Your task to perform on an android device: Empty the shopping cart on target. Search for "duracell triple a" on target, select the first entry, add it to the cart, then select checkout. Image 0: 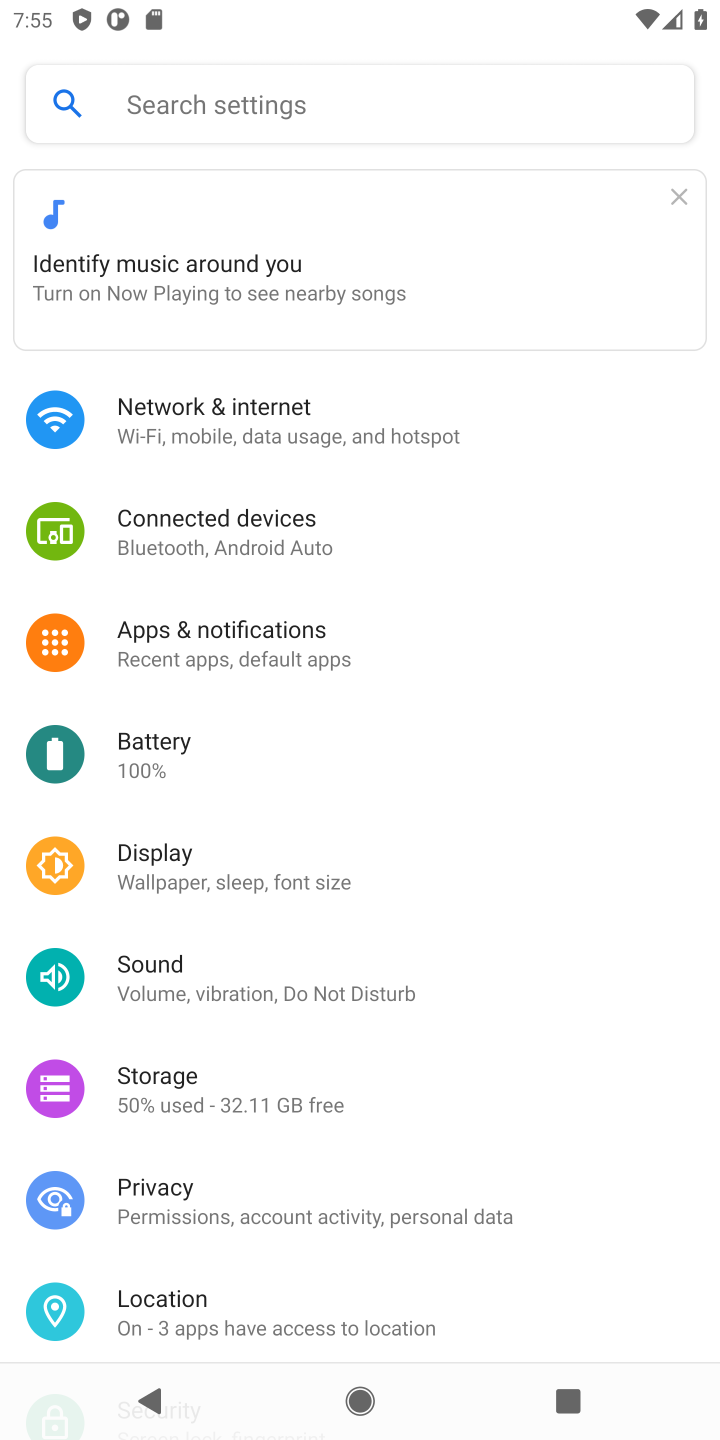
Step 0: press home button
Your task to perform on an android device: Empty the shopping cart on target. Search for "duracell triple a" on target, select the first entry, add it to the cart, then select checkout. Image 1: 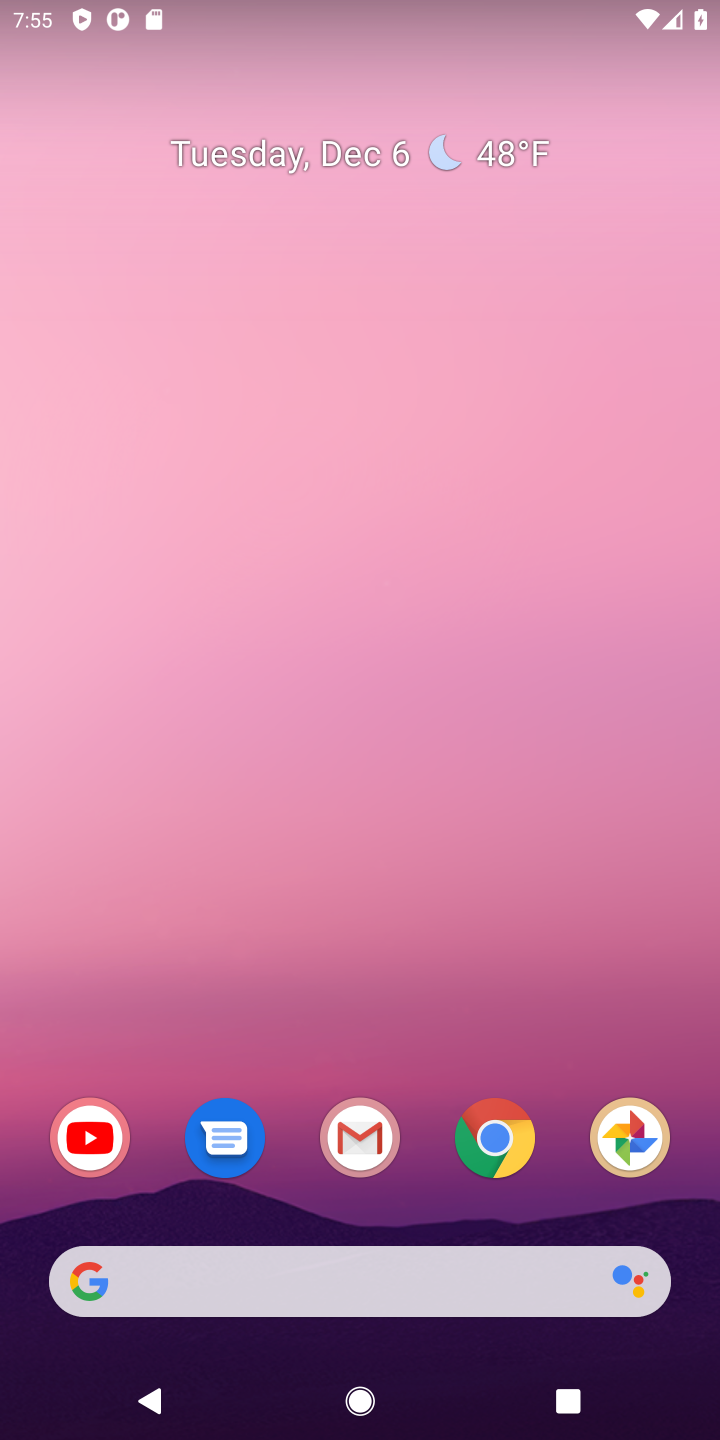
Step 1: click (499, 1125)
Your task to perform on an android device: Empty the shopping cart on target. Search for "duracell triple a" on target, select the first entry, add it to the cart, then select checkout. Image 2: 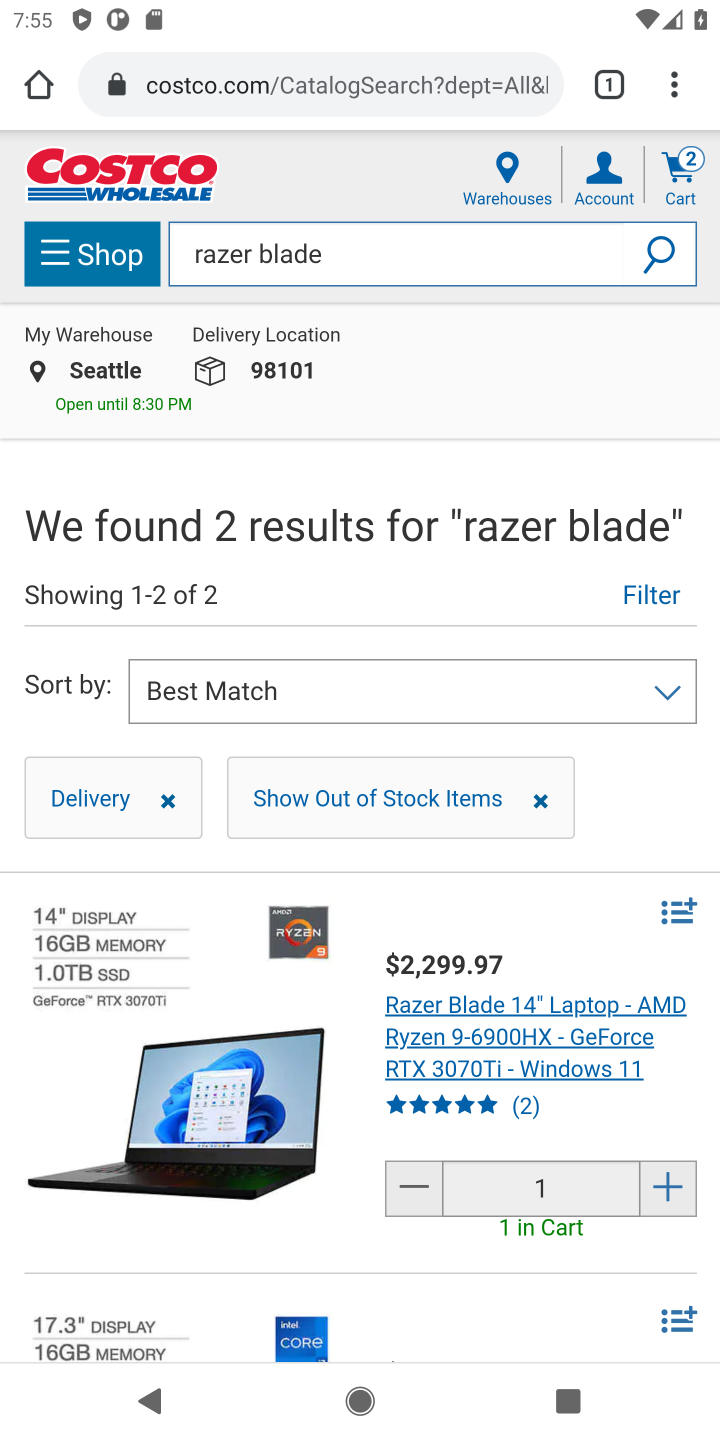
Step 2: click (312, 102)
Your task to perform on an android device: Empty the shopping cart on target. Search for "duracell triple a" on target, select the first entry, add it to the cart, then select checkout. Image 3: 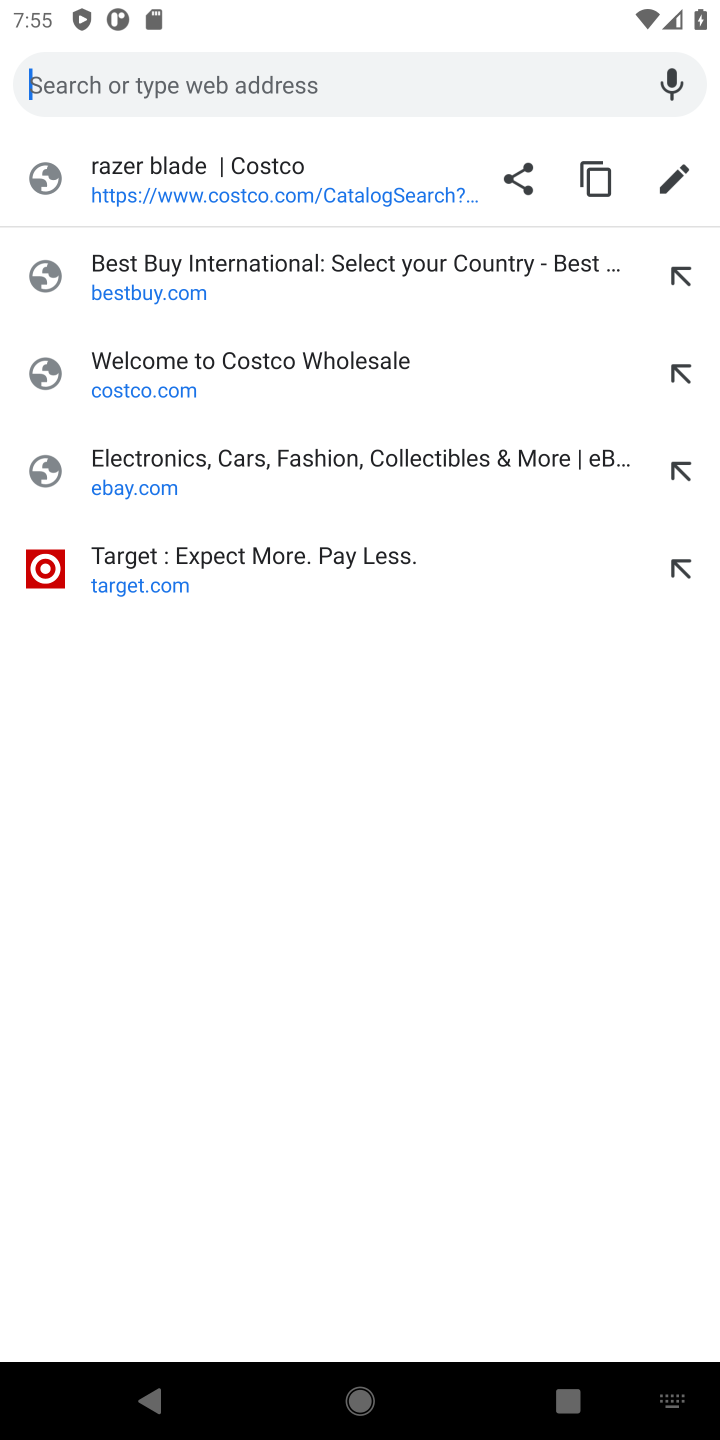
Step 3: click (169, 591)
Your task to perform on an android device: Empty the shopping cart on target. Search for "duracell triple a" on target, select the first entry, add it to the cart, then select checkout. Image 4: 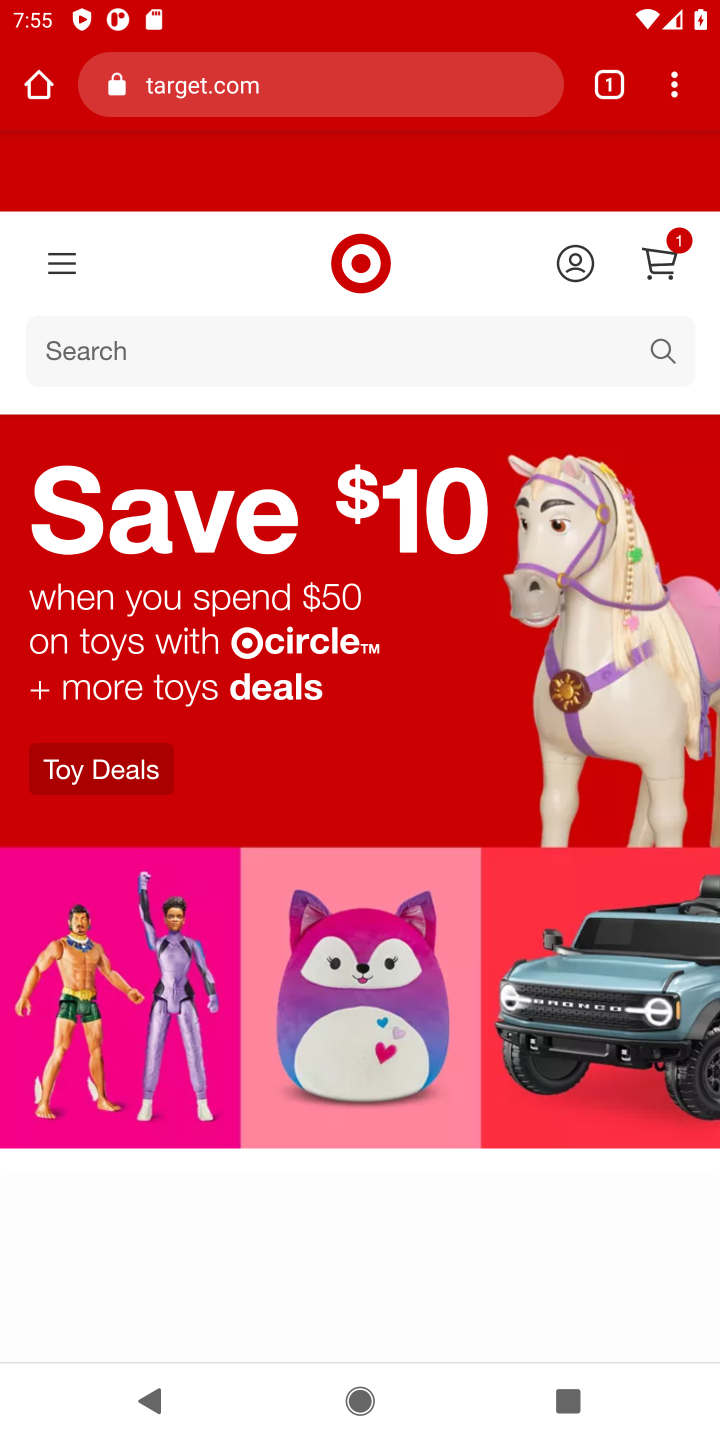
Step 4: click (666, 256)
Your task to perform on an android device: Empty the shopping cart on target. Search for "duracell triple a" on target, select the first entry, add it to the cart, then select checkout. Image 5: 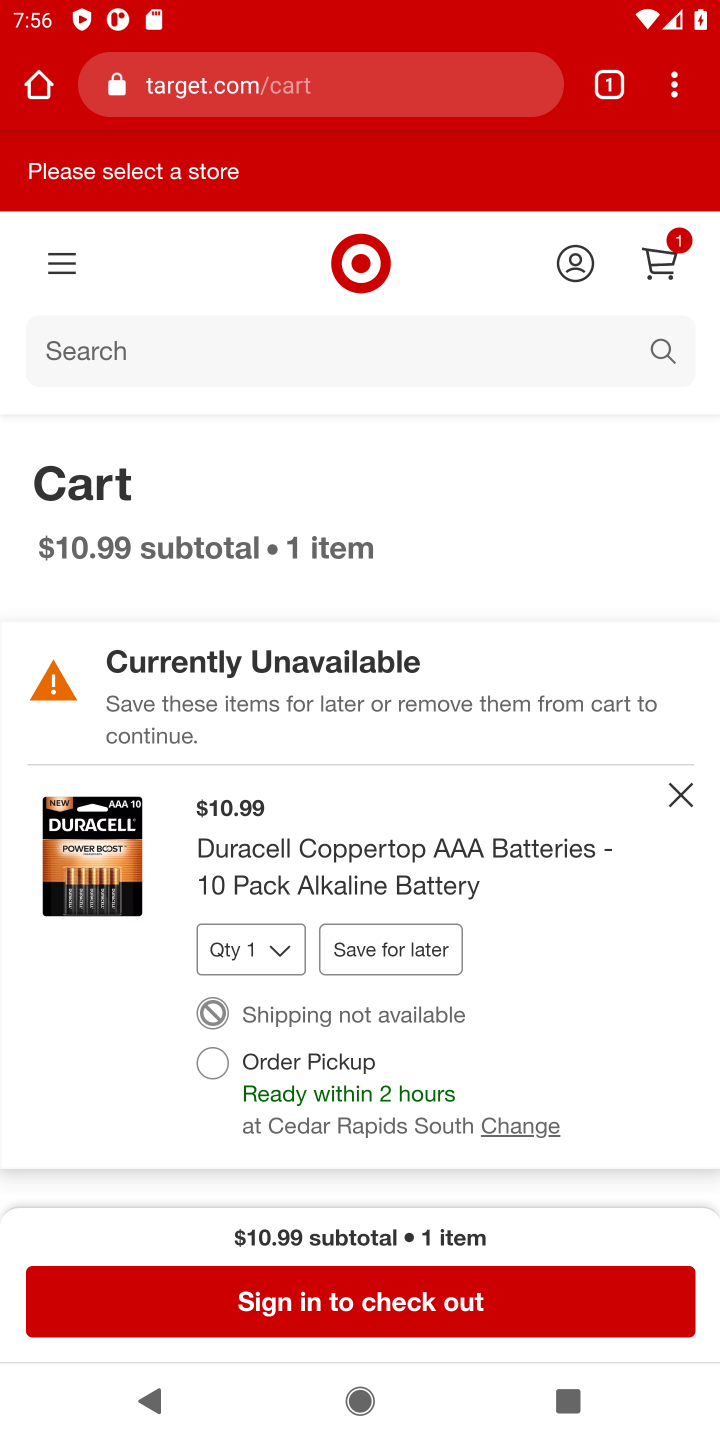
Step 5: click (675, 800)
Your task to perform on an android device: Empty the shopping cart on target. Search for "duracell triple a" on target, select the first entry, add it to the cart, then select checkout. Image 6: 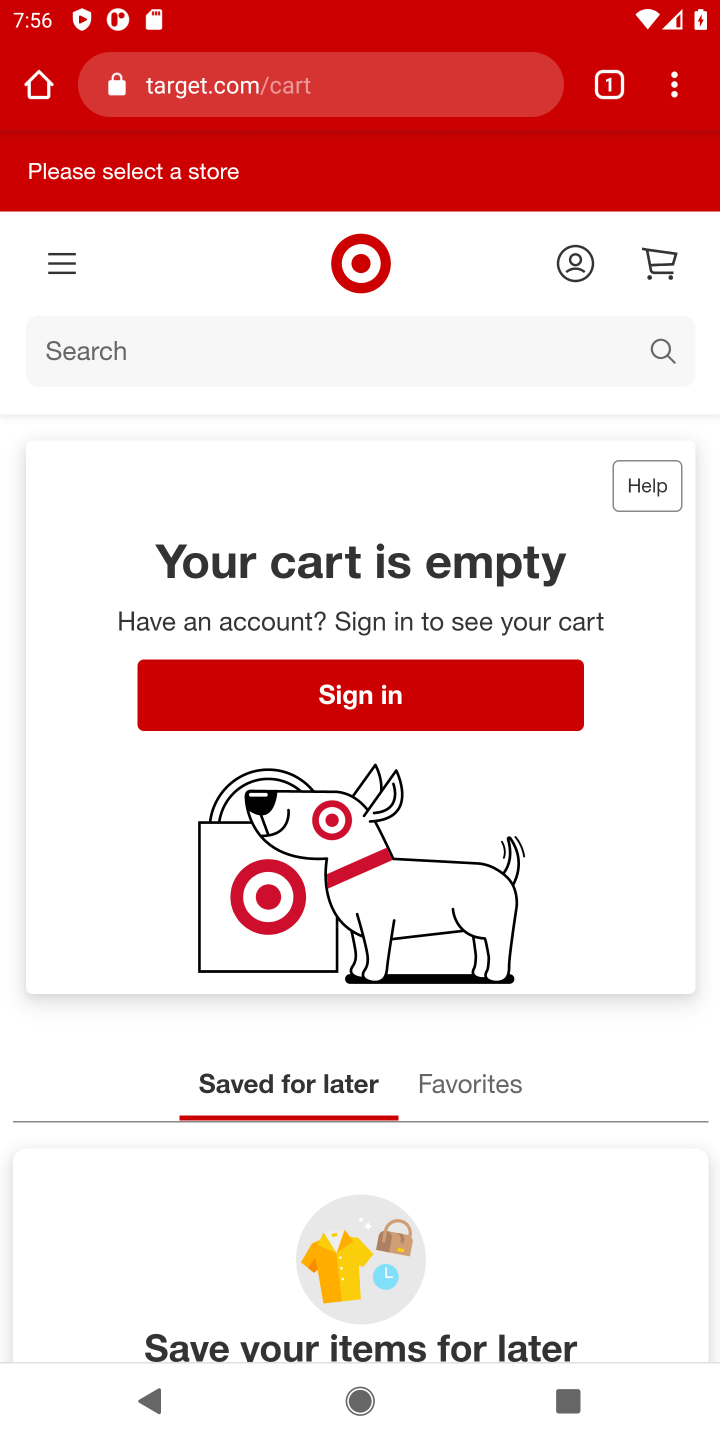
Step 6: click (92, 360)
Your task to perform on an android device: Empty the shopping cart on target. Search for "duracell triple a" on target, select the first entry, add it to the cart, then select checkout. Image 7: 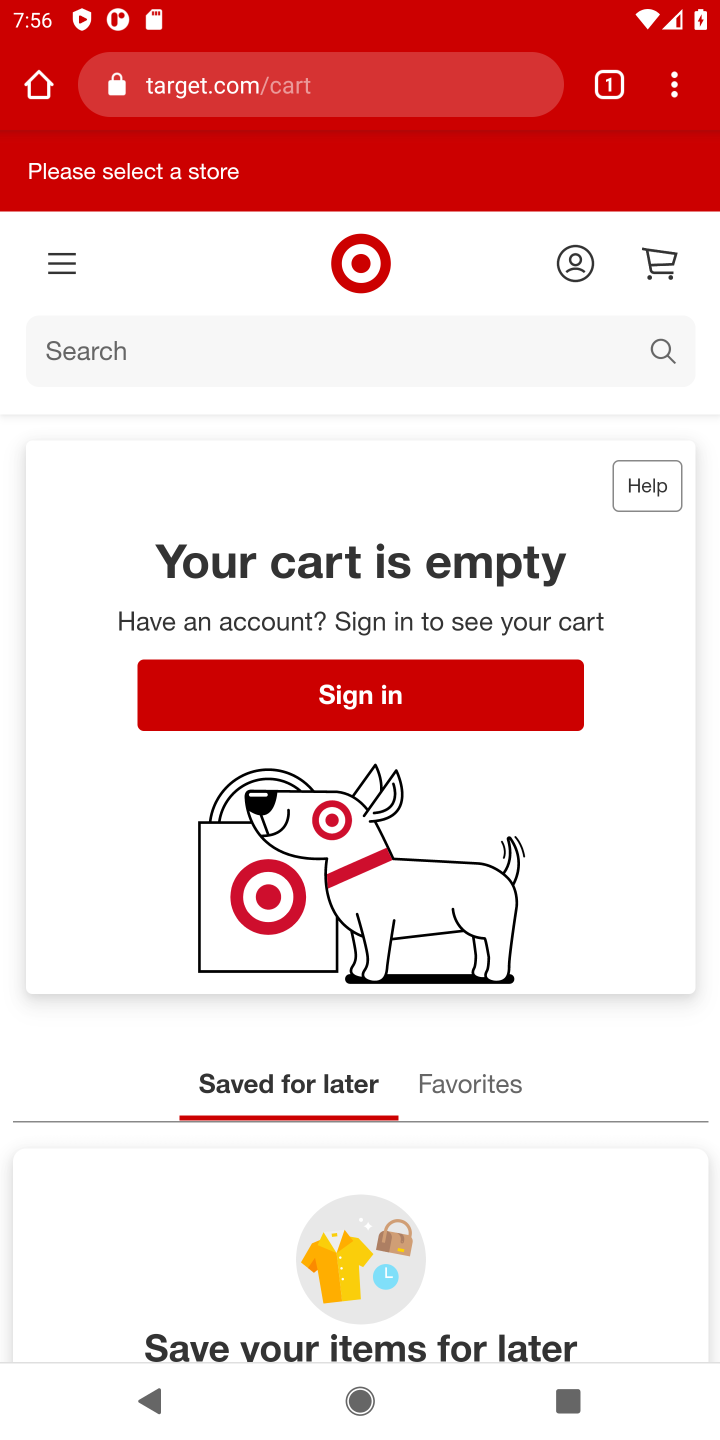
Step 7: click (92, 360)
Your task to perform on an android device: Empty the shopping cart on target. Search for "duracell triple a" on target, select the first entry, add it to the cart, then select checkout. Image 8: 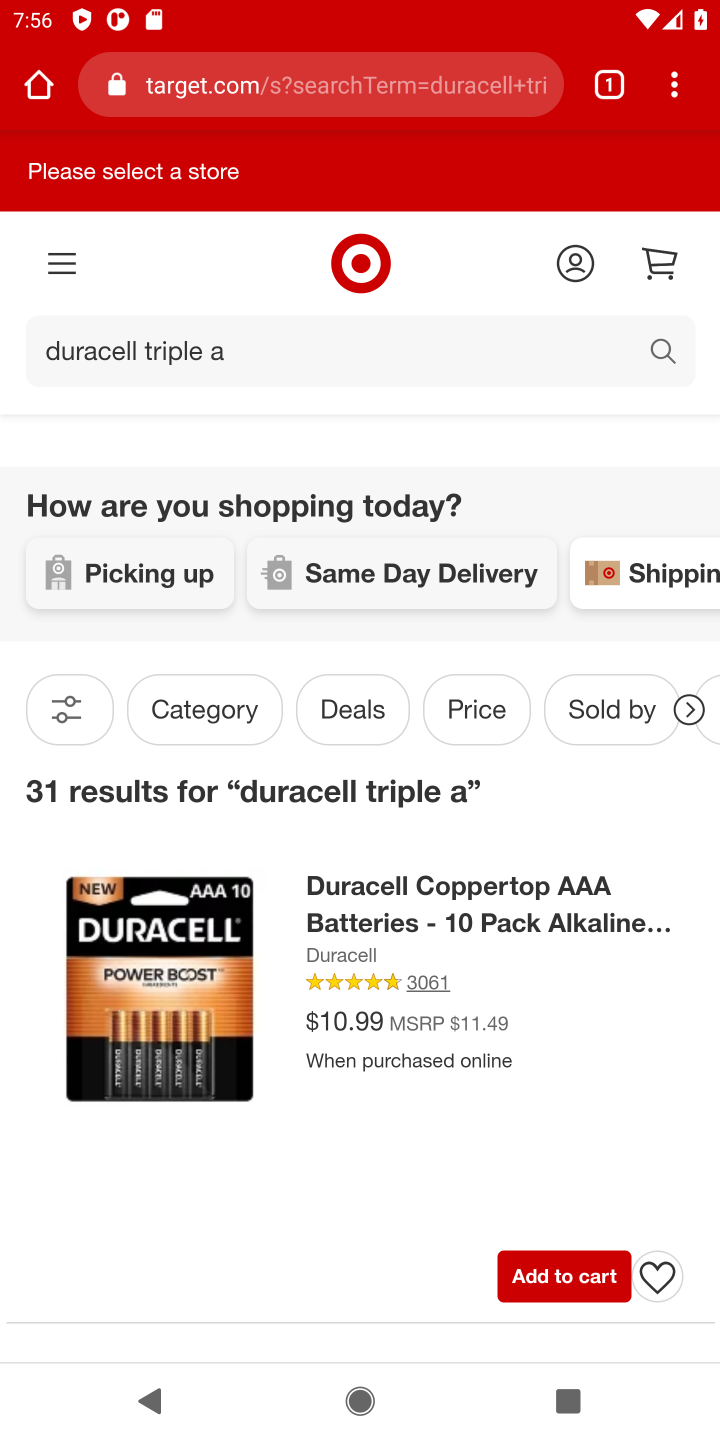
Step 8: click (666, 357)
Your task to perform on an android device: Empty the shopping cart on target. Search for "duracell triple a" on target, select the first entry, add it to the cart, then select checkout. Image 9: 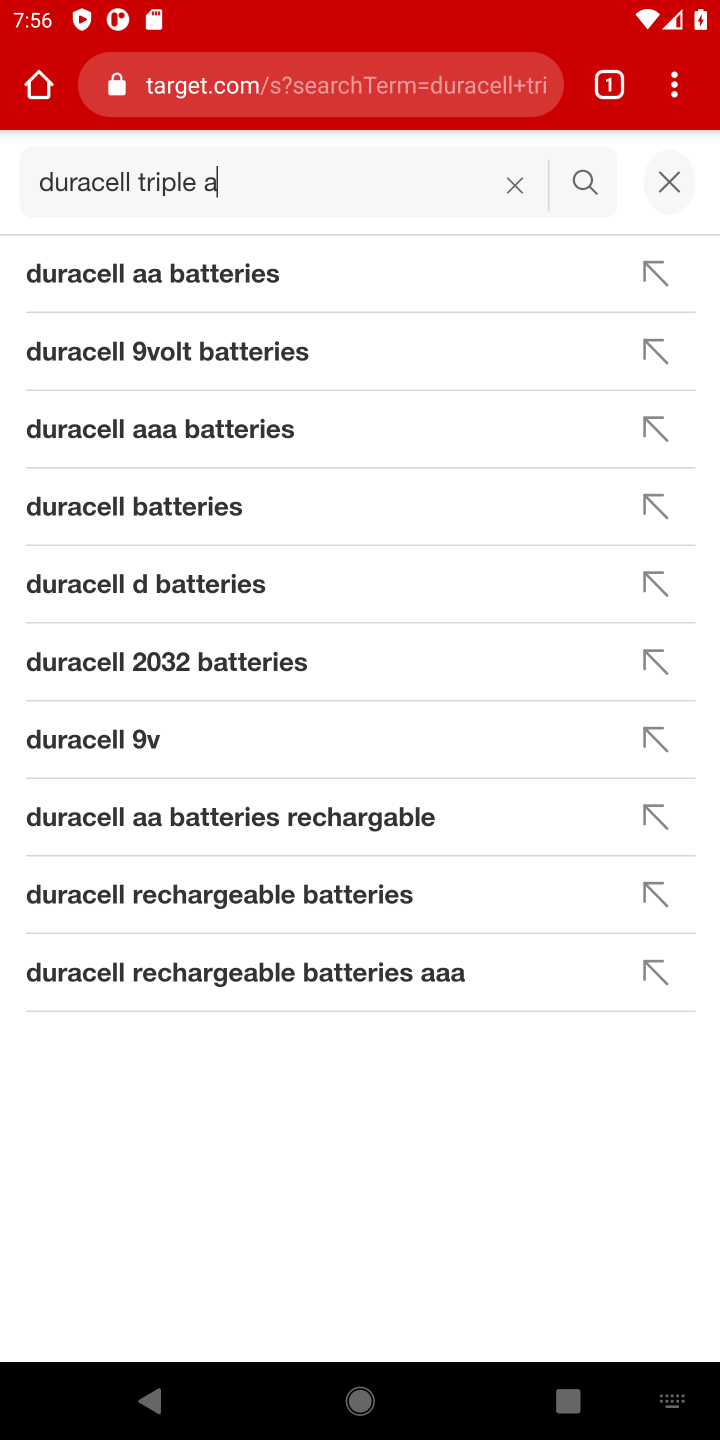
Step 9: click (592, 180)
Your task to perform on an android device: Empty the shopping cart on target. Search for "duracell triple a" on target, select the first entry, add it to the cart, then select checkout. Image 10: 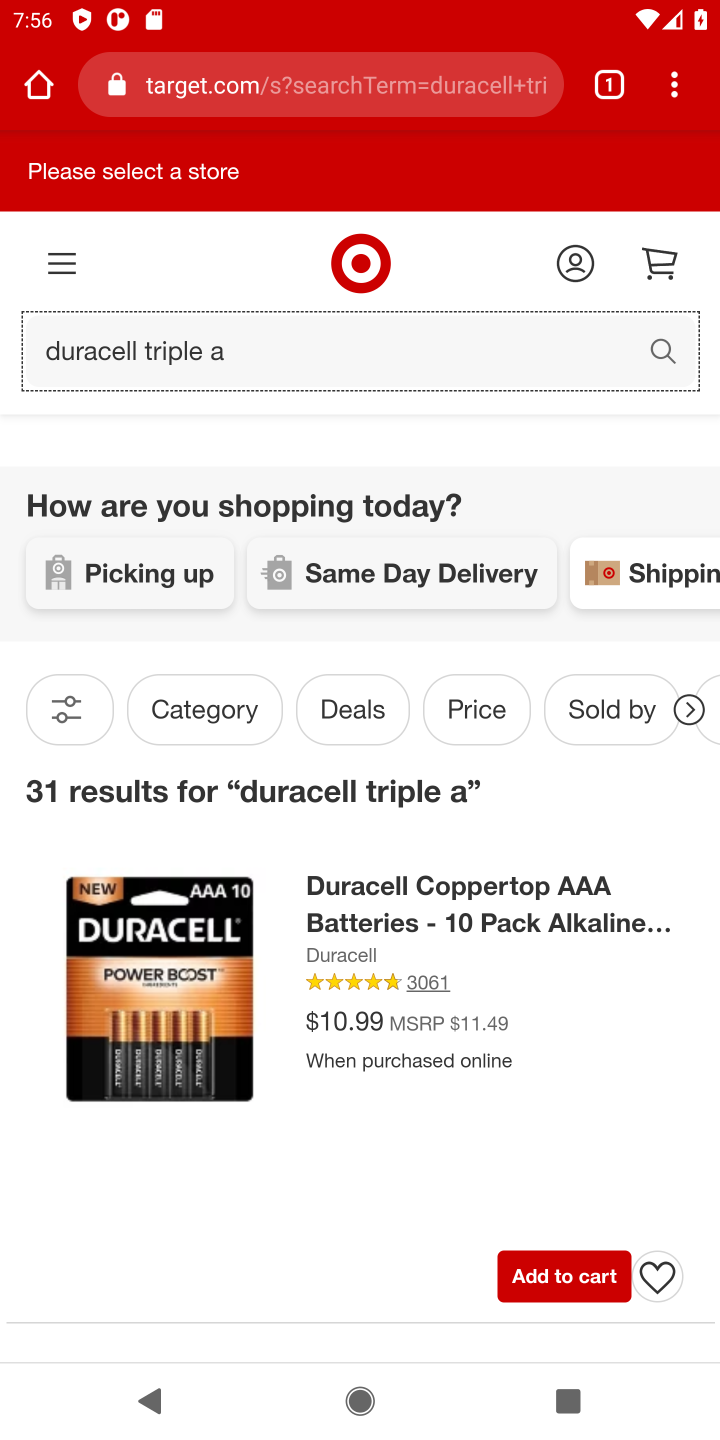
Step 10: click (527, 1282)
Your task to perform on an android device: Empty the shopping cart on target. Search for "duracell triple a" on target, select the first entry, add it to the cart, then select checkout. Image 11: 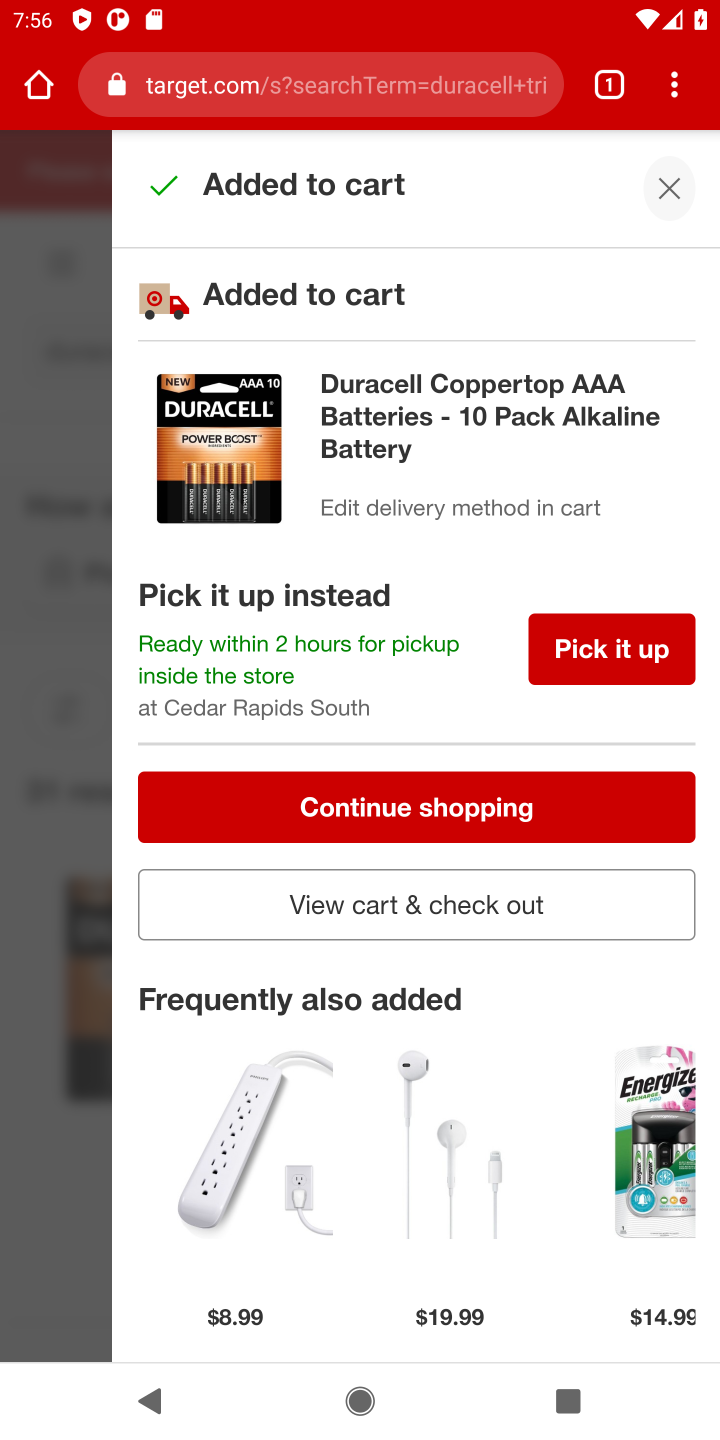
Step 11: click (430, 916)
Your task to perform on an android device: Empty the shopping cart on target. Search for "duracell triple a" on target, select the first entry, add it to the cart, then select checkout. Image 12: 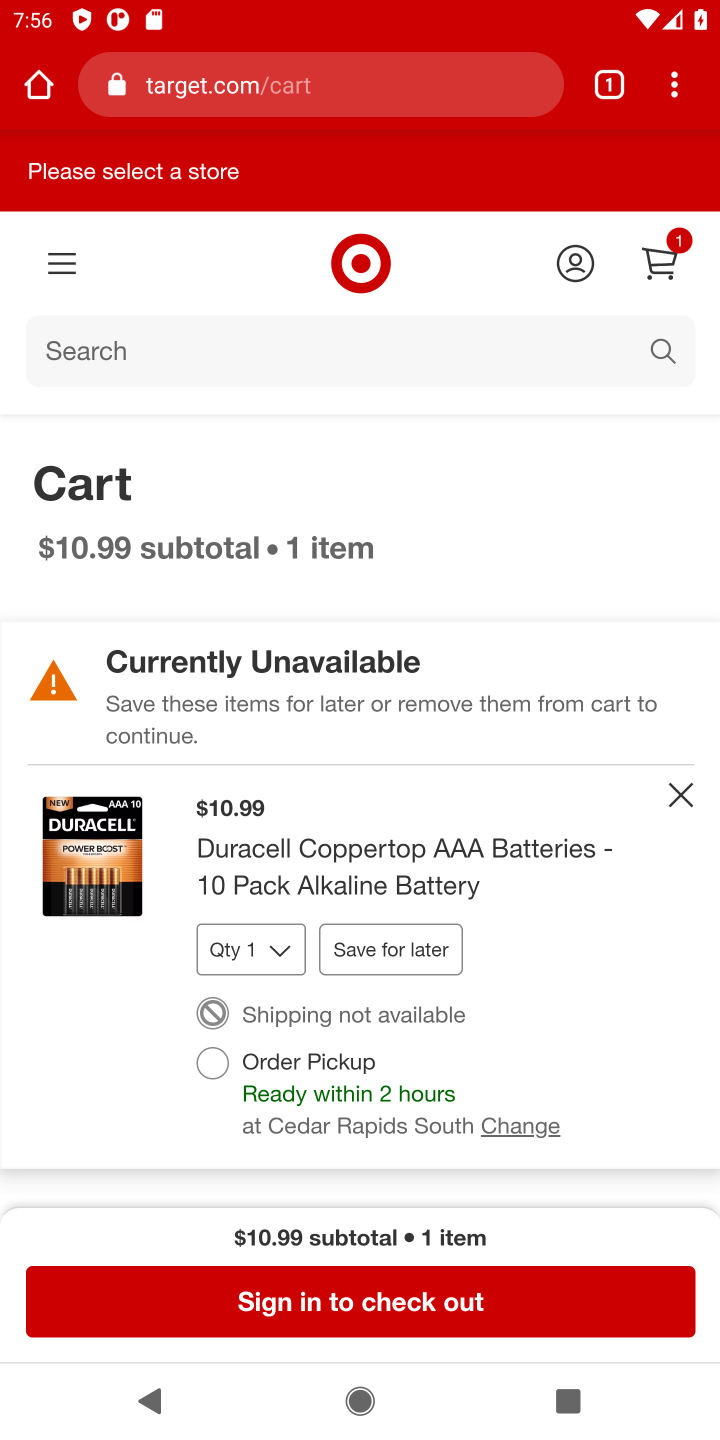
Step 12: click (349, 1302)
Your task to perform on an android device: Empty the shopping cart on target. Search for "duracell triple a" on target, select the first entry, add it to the cart, then select checkout. Image 13: 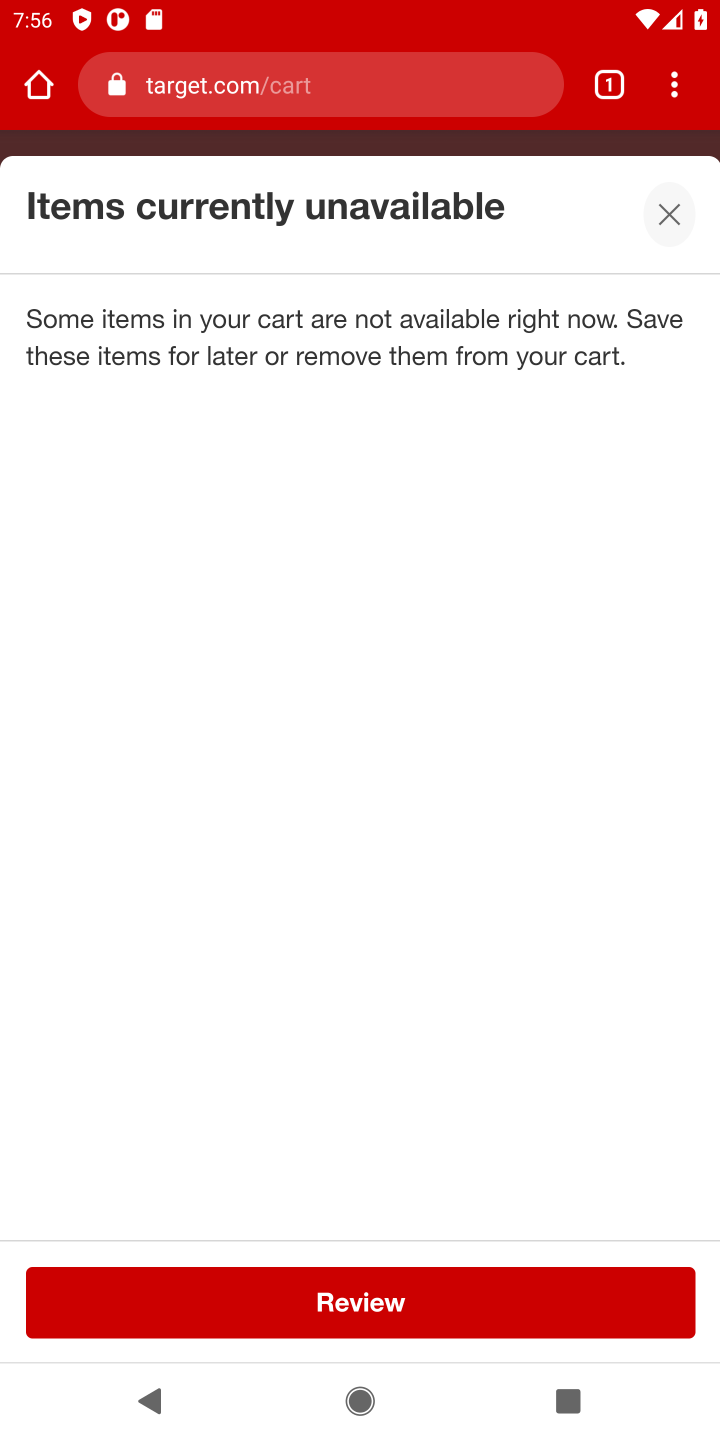
Step 13: task complete